Your task to perform on an android device: clear all cookies in the chrome app Image 0: 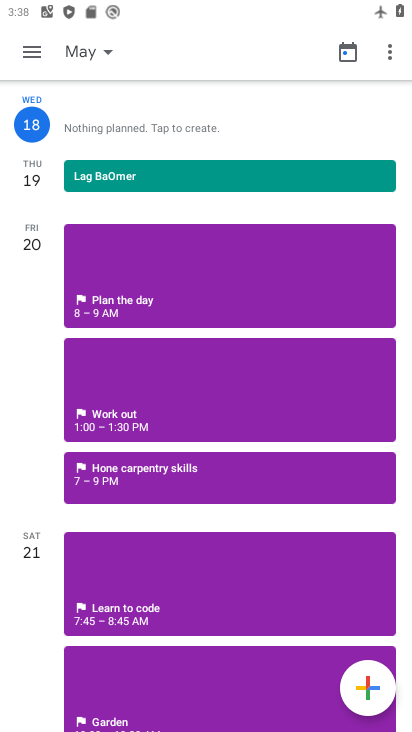
Step 0: press home button
Your task to perform on an android device: clear all cookies in the chrome app Image 1: 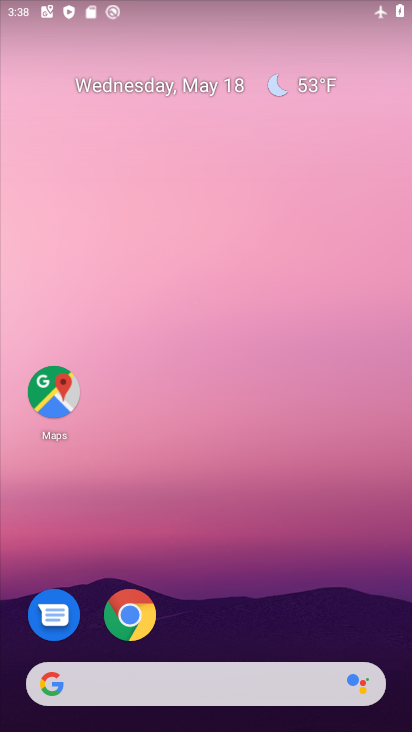
Step 1: click (127, 614)
Your task to perform on an android device: clear all cookies in the chrome app Image 2: 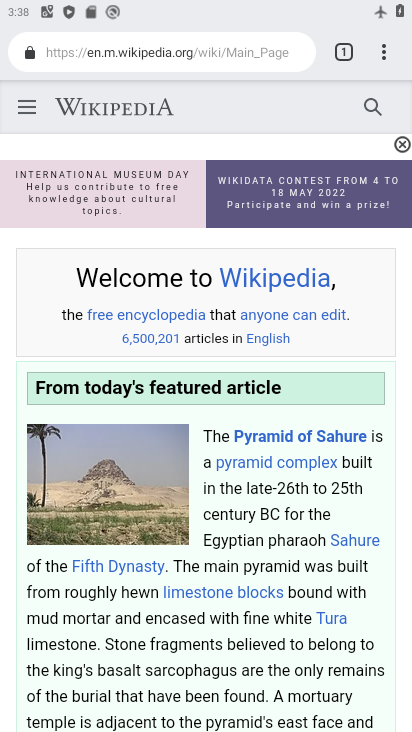
Step 2: drag from (384, 52) to (231, 299)
Your task to perform on an android device: clear all cookies in the chrome app Image 3: 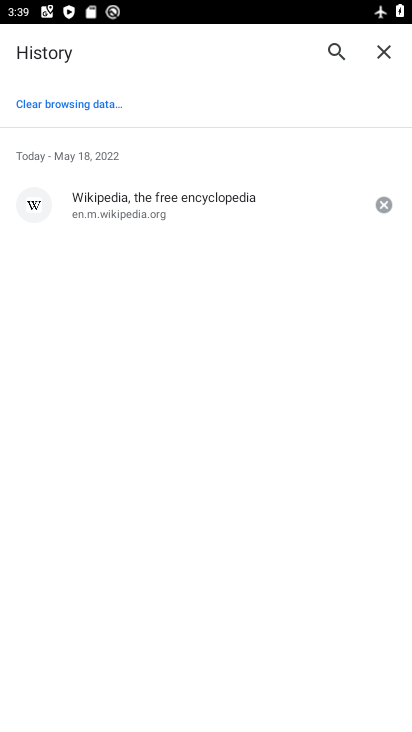
Step 3: click (89, 105)
Your task to perform on an android device: clear all cookies in the chrome app Image 4: 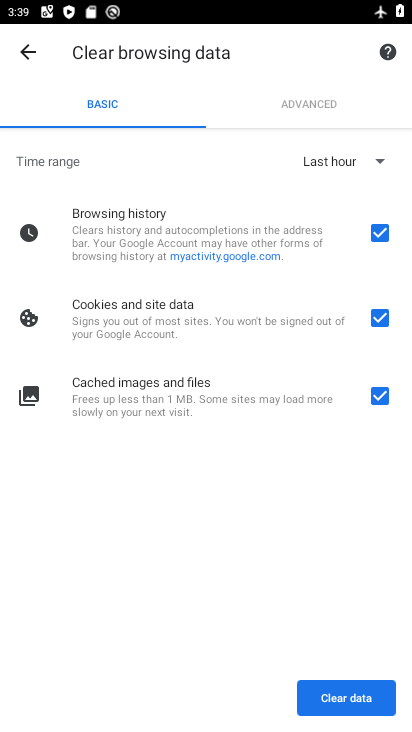
Step 4: click (350, 157)
Your task to perform on an android device: clear all cookies in the chrome app Image 5: 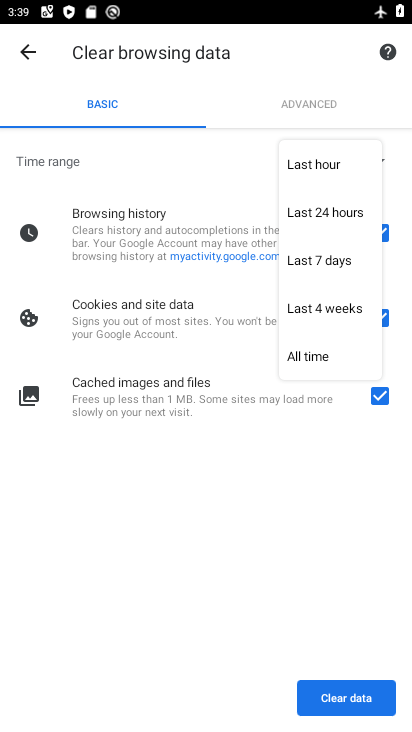
Step 5: click (318, 358)
Your task to perform on an android device: clear all cookies in the chrome app Image 6: 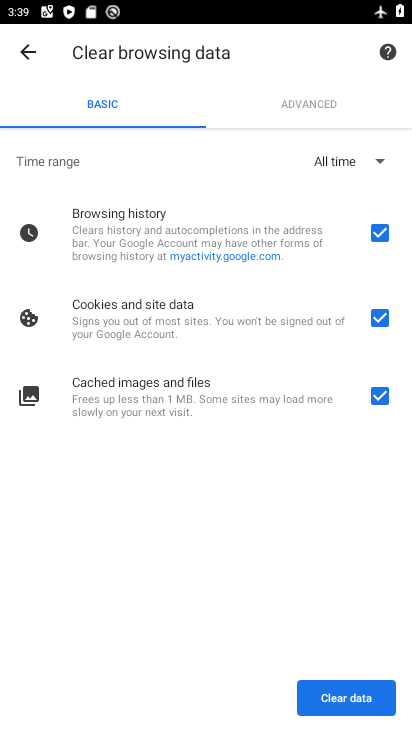
Step 6: click (374, 704)
Your task to perform on an android device: clear all cookies in the chrome app Image 7: 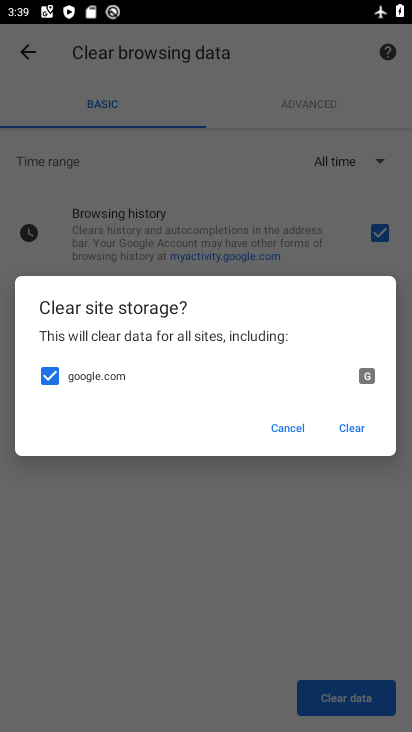
Step 7: click (356, 417)
Your task to perform on an android device: clear all cookies in the chrome app Image 8: 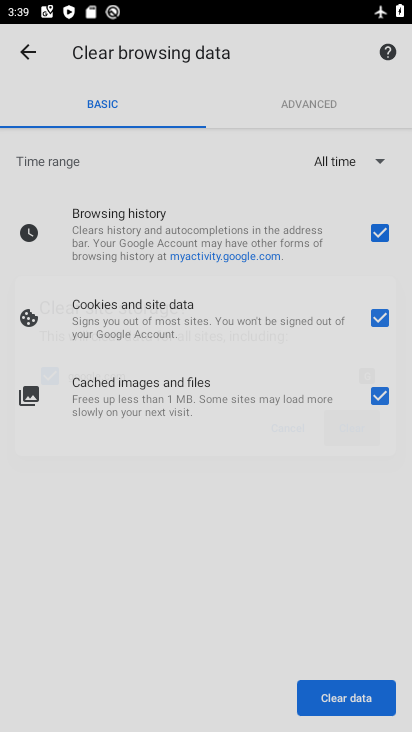
Step 8: click (360, 423)
Your task to perform on an android device: clear all cookies in the chrome app Image 9: 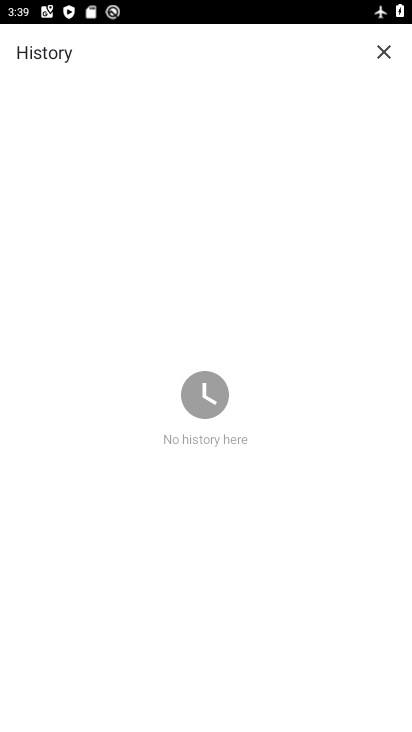
Step 9: task complete